Your task to perform on an android device: Go to Google maps Image 0: 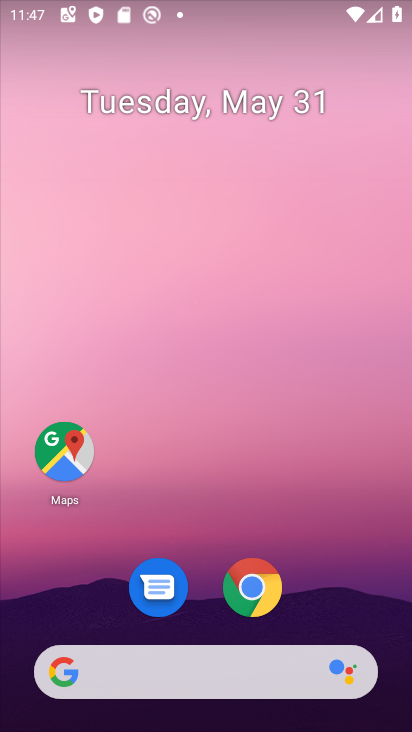
Step 0: click (66, 451)
Your task to perform on an android device: Go to Google maps Image 1: 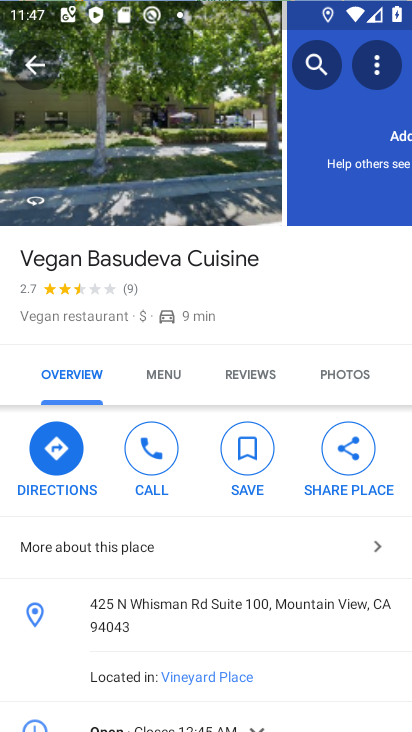
Step 1: click (36, 69)
Your task to perform on an android device: Go to Google maps Image 2: 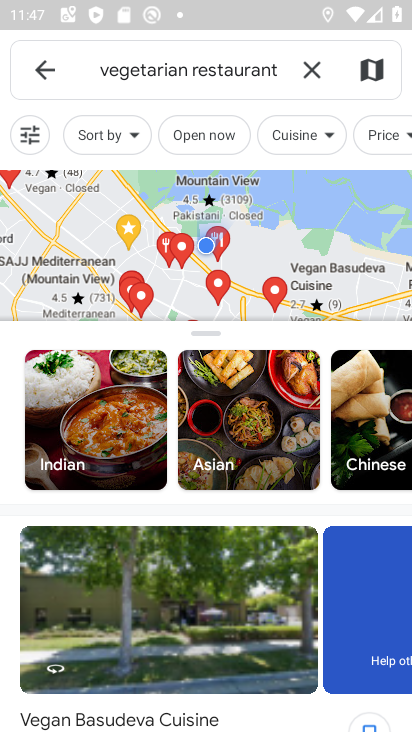
Step 2: click (45, 69)
Your task to perform on an android device: Go to Google maps Image 3: 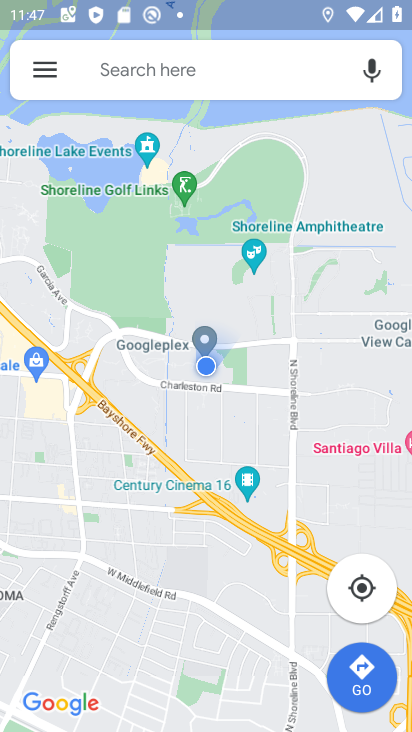
Step 3: task complete